Your task to perform on an android device: open app "DoorDash - Dasher" (install if not already installed) and go to login screen Image 0: 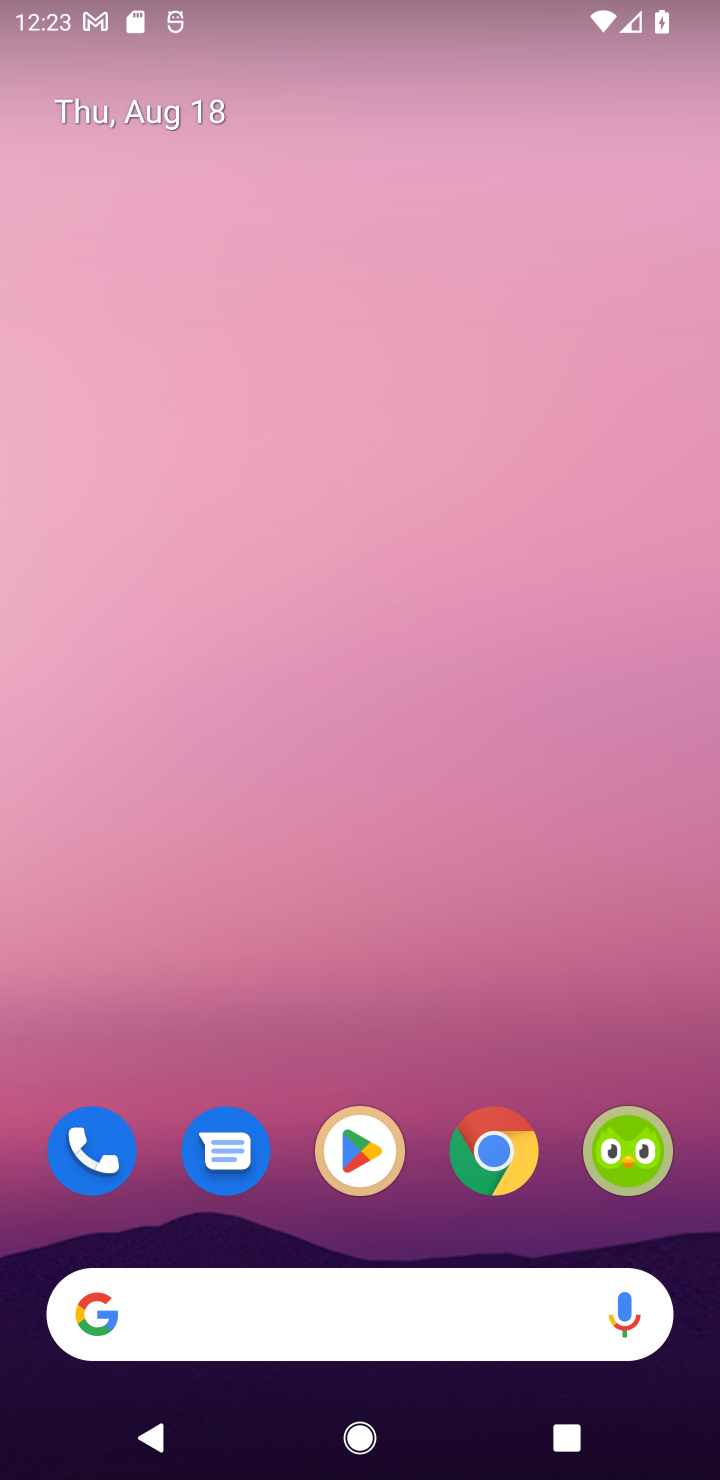
Step 0: click (348, 1169)
Your task to perform on an android device: open app "DoorDash - Dasher" (install if not already installed) and go to login screen Image 1: 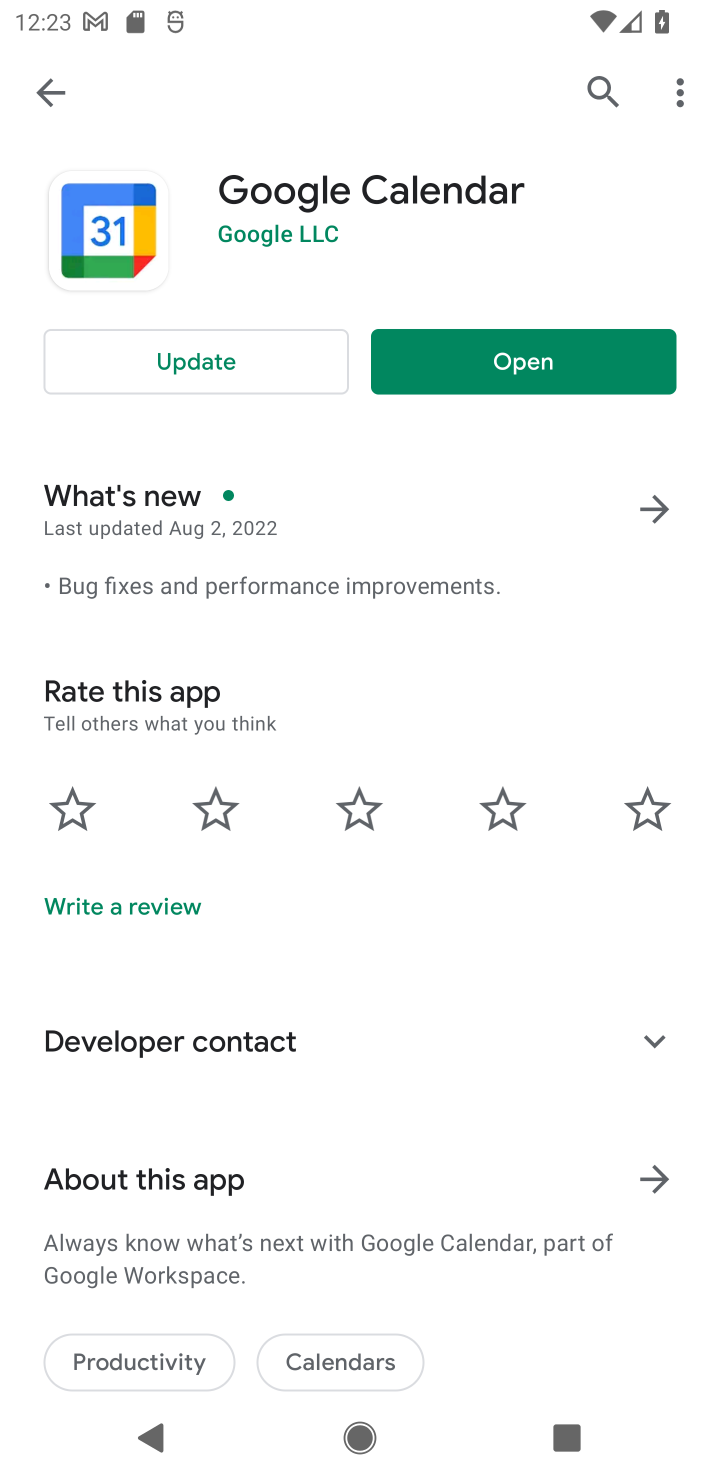
Step 1: click (42, 81)
Your task to perform on an android device: open app "DoorDash - Dasher" (install if not already installed) and go to login screen Image 2: 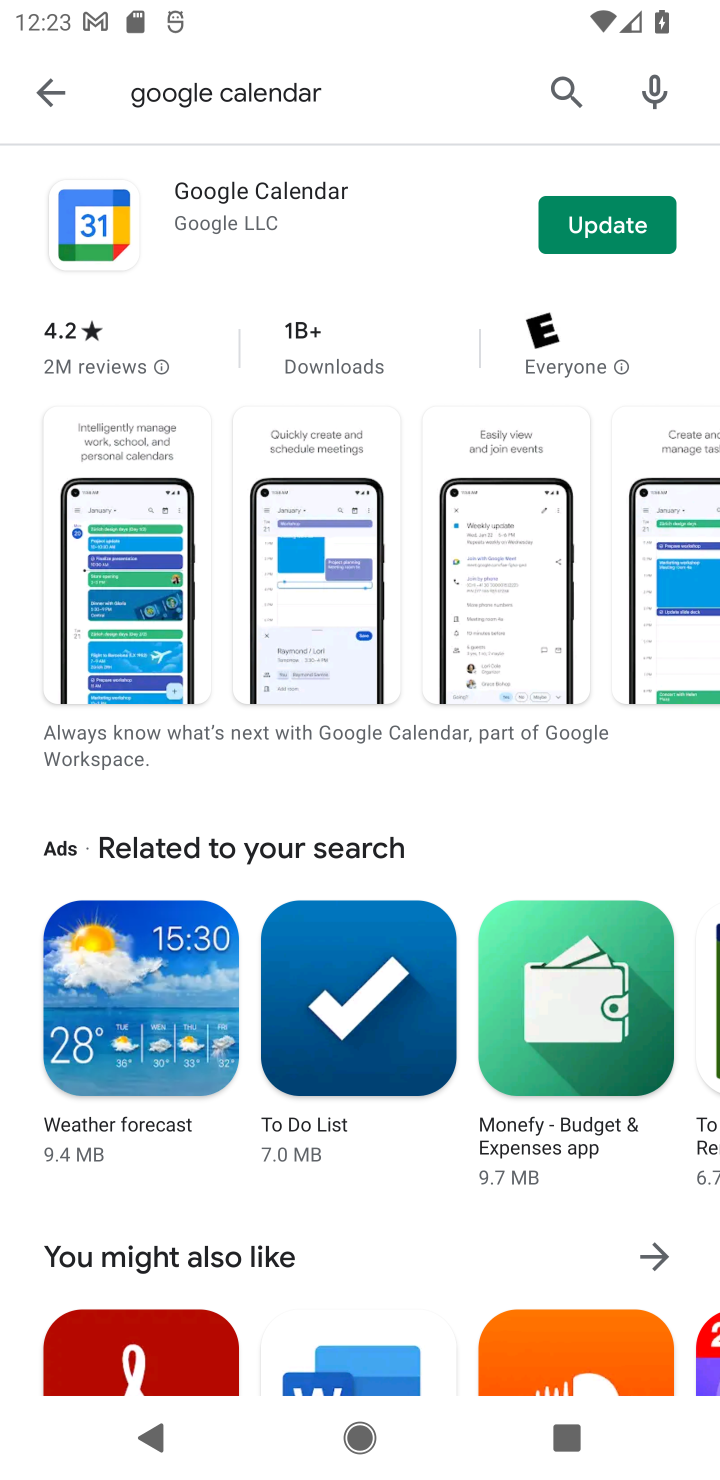
Step 2: click (36, 99)
Your task to perform on an android device: open app "DoorDash - Dasher" (install if not already installed) and go to login screen Image 3: 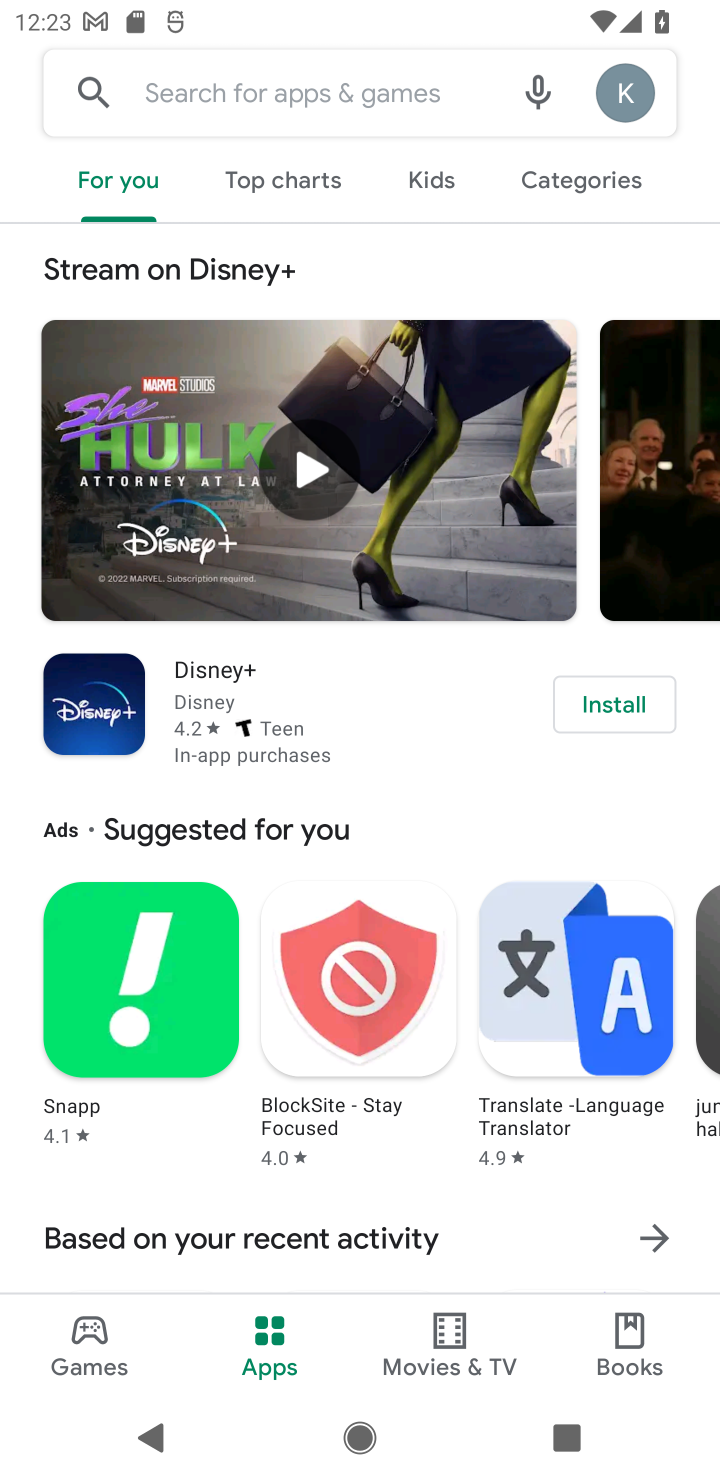
Step 3: click (274, 105)
Your task to perform on an android device: open app "DoorDash - Dasher" (install if not already installed) and go to login screen Image 4: 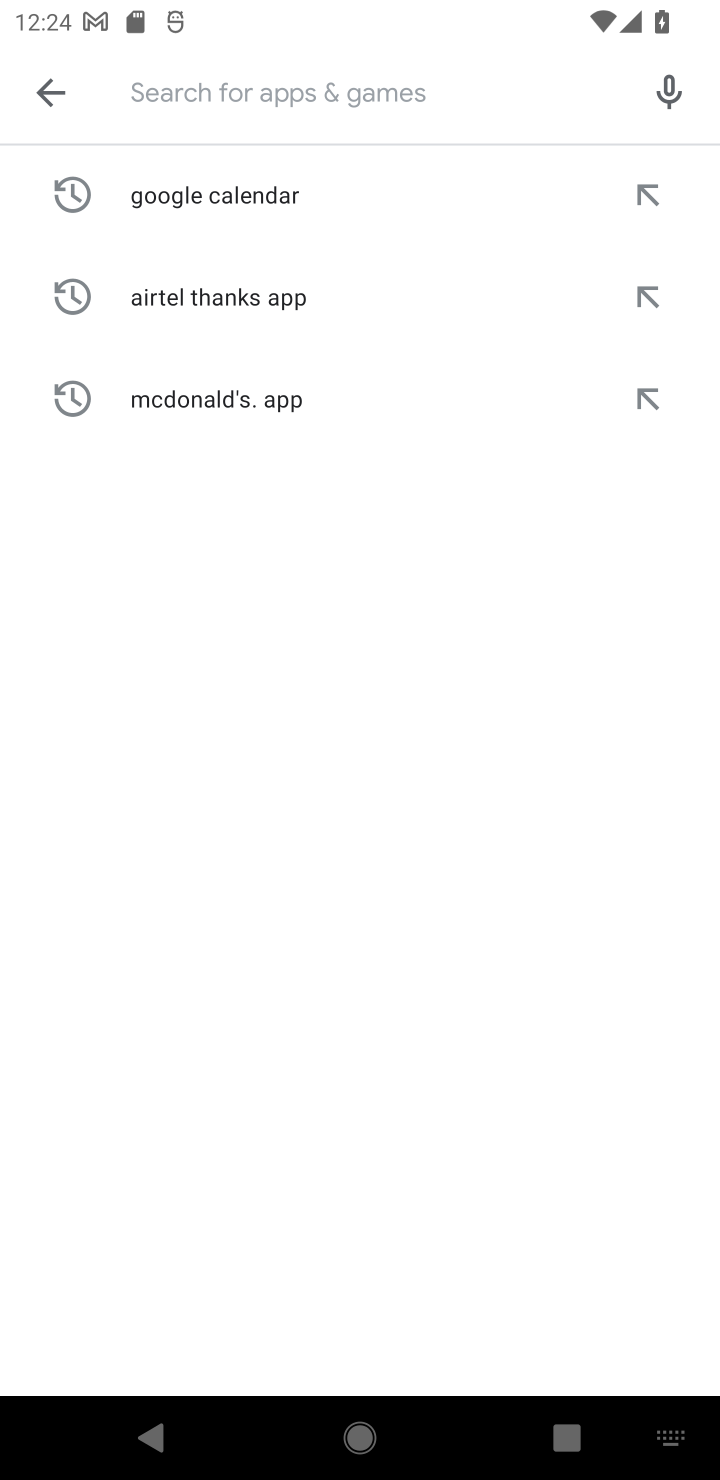
Step 4: type "DoorDash"
Your task to perform on an android device: open app "DoorDash - Dasher" (install if not already installed) and go to login screen Image 5: 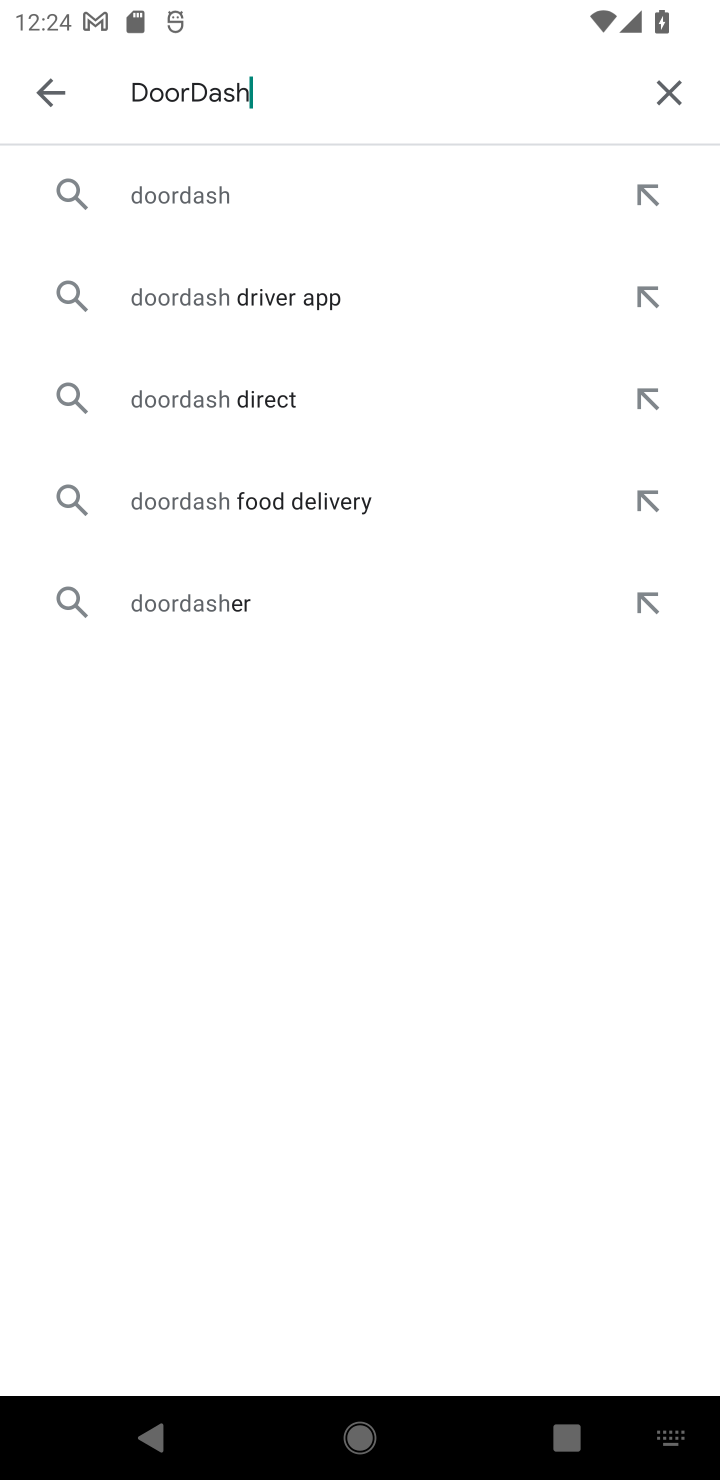
Step 5: click (205, 189)
Your task to perform on an android device: open app "DoorDash - Dasher" (install if not already installed) and go to login screen Image 6: 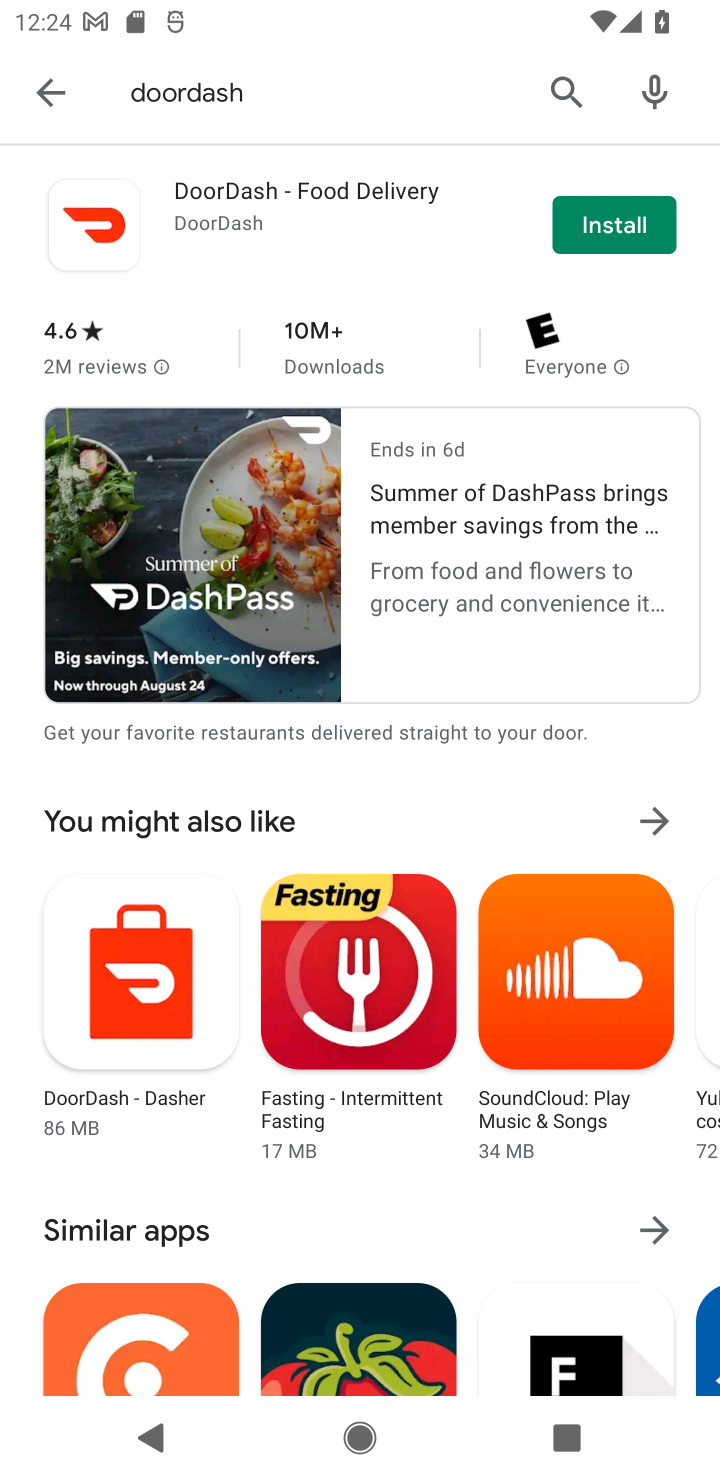
Step 6: click (613, 238)
Your task to perform on an android device: open app "DoorDash - Dasher" (install if not already installed) and go to login screen Image 7: 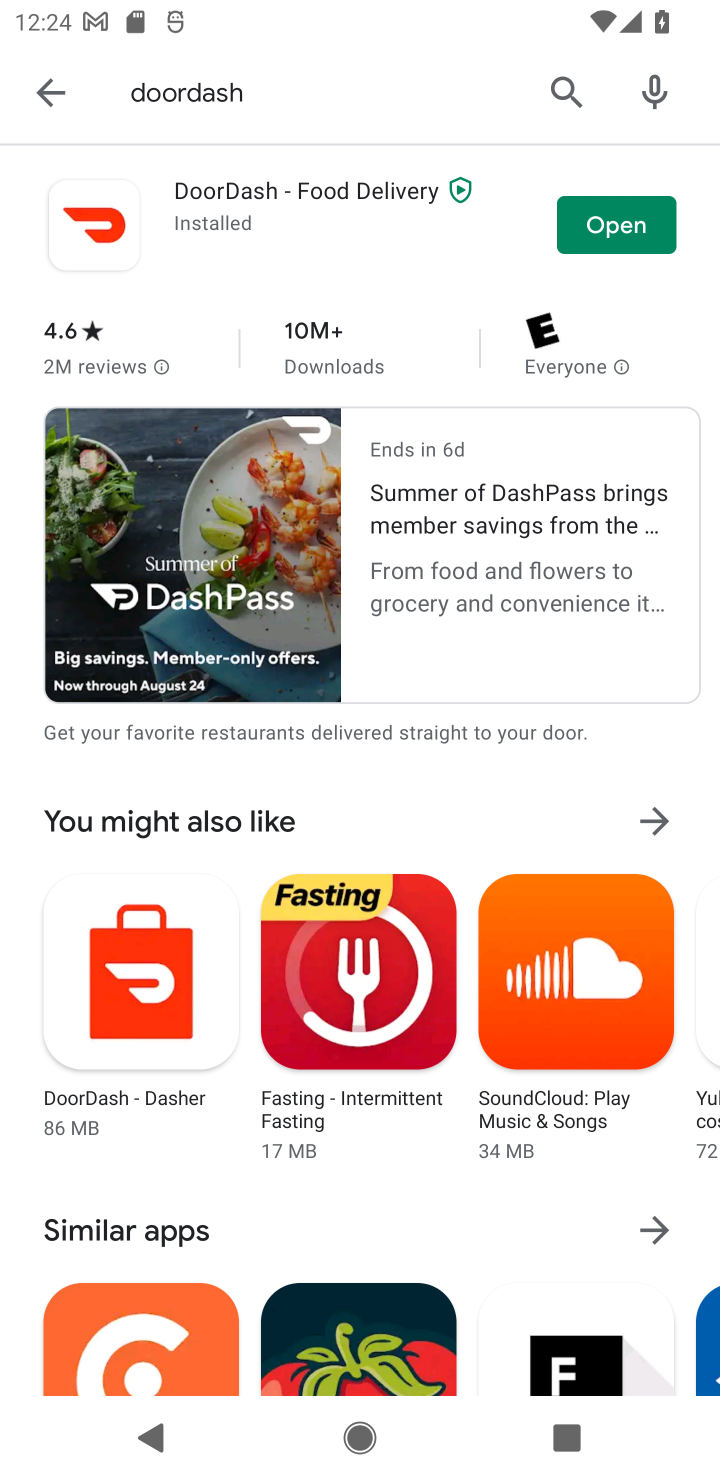
Step 7: click (613, 238)
Your task to perform on an android device: open app "DoorDash - Dasher" (install if not already installed) and go to login screen Image 8: 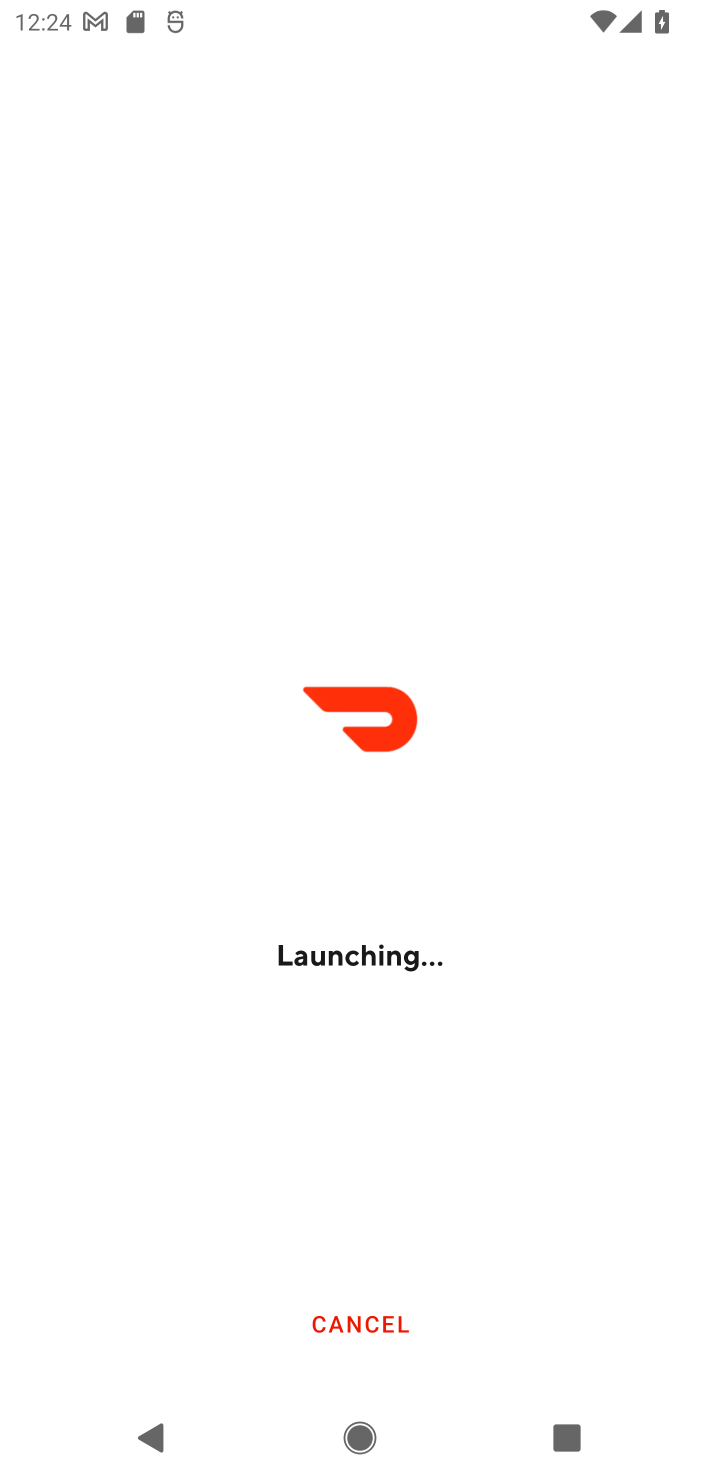
Step 8: task complete